Your task to perform on an android device: find which apps use the phone's location Image 0: 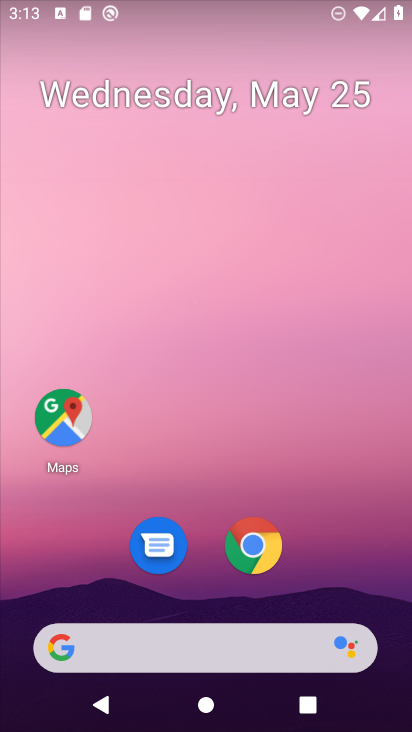
Step 0: drag from (353, 599) to (341, 315)
Your task to perform on an android device: find which apps use the phone's location Image 1: 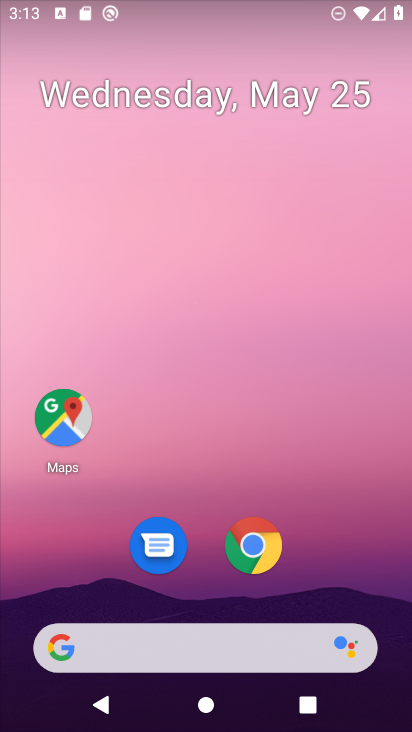
Step 1: drag from (356, 550) to (398, 482)
Your task to perform on an android device: find which apps use the phone's location Image 2: 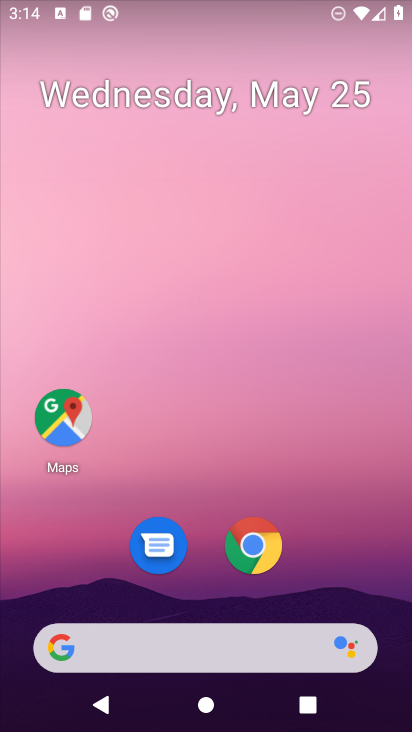
Step 2: drag from (351, 563) to (340, 92)
Your task to perform on an android device: find which apps use the phone's location Image 3: 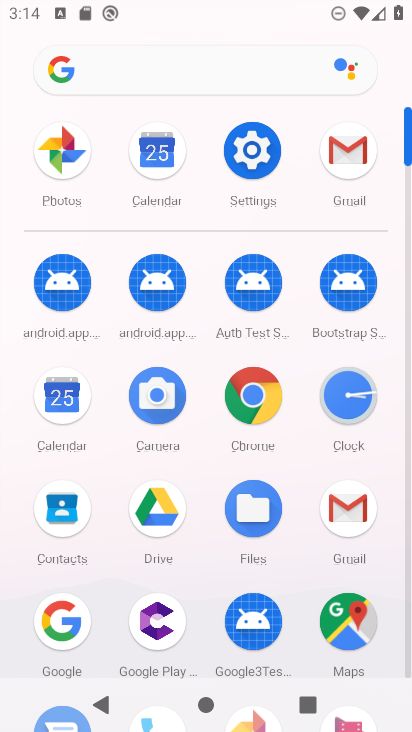
Step 3: click (237, 146)
Your task to perform on an android device: find which apps use the phone's location Image 4: 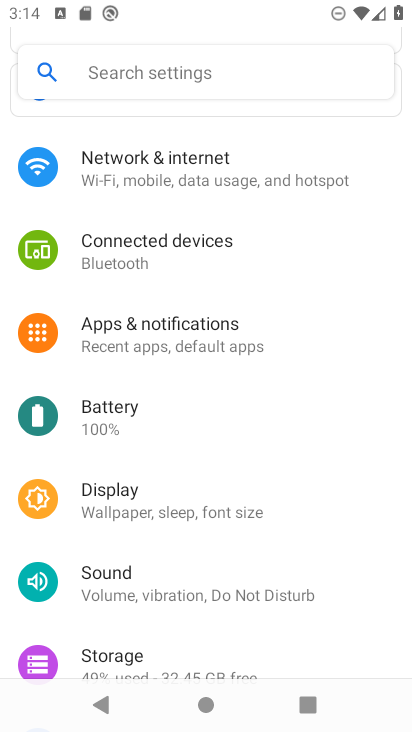
Step 4: drag from (260, 634) to (261, 356)
Your task to perform on an android device: find which apps use the phone's location Image 5: 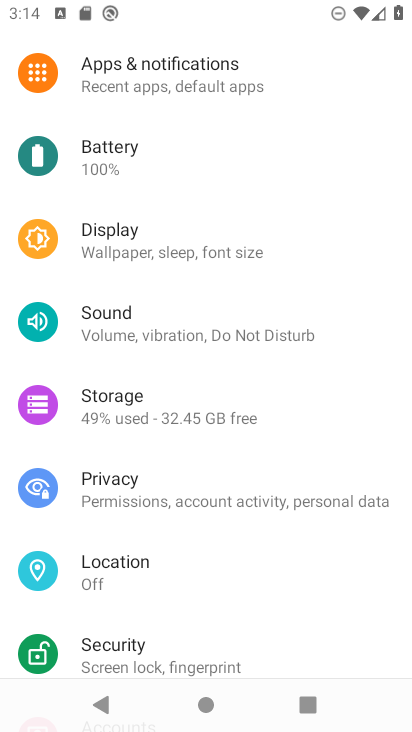
Step 5: click (218, 580)
Your task to perform on an android device: find which apps use the phone's location Image 6: 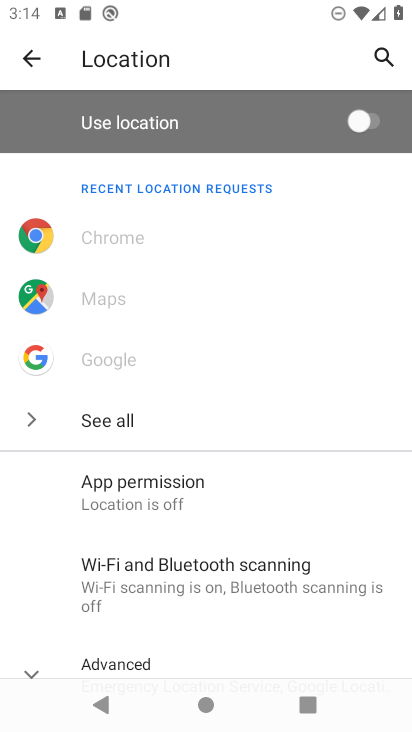
Step 6: click (128, 428)
Your task to perform on an android device: find which apps use the phone's location Image 7: 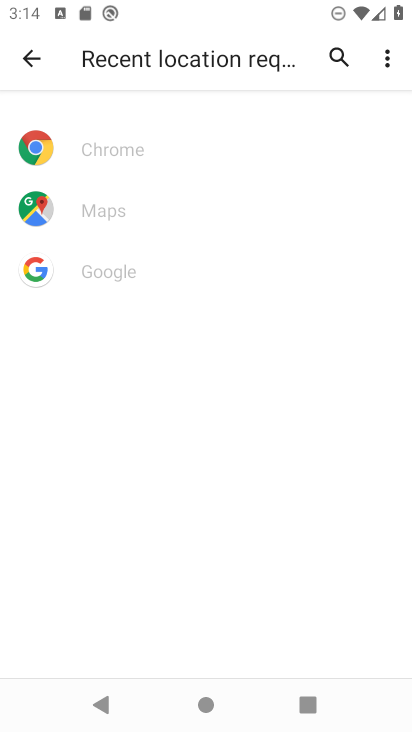
Step 7: task complete